Your task to perform on an android device: turn vacation reply on in the gmail app Image 0: 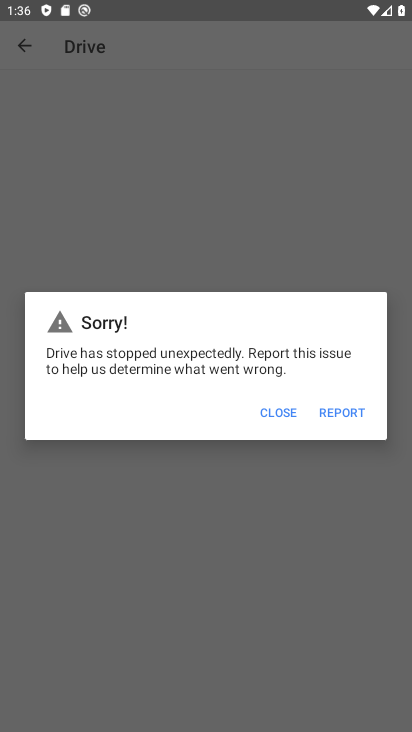
Step 0: press home button
Your task to perform on an android device: turn vacation reply on in the gmail app Image 1: 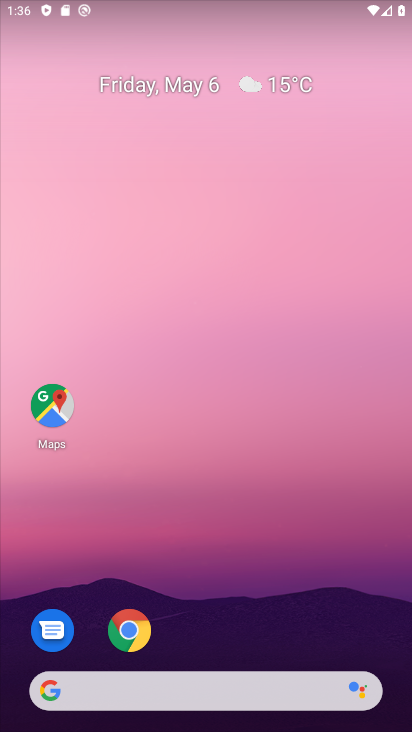
Step 1: drag from (205, 623) to (252, 15)
Your task to perform on an android device: turn vacation reply on in the gmail app Image 2: 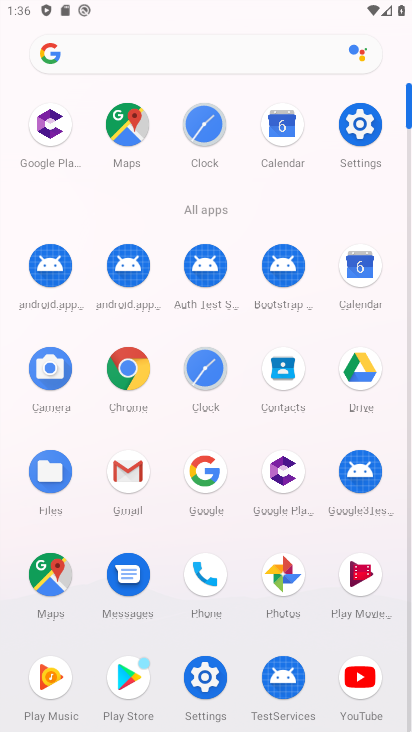
Step 2: click (123, 465)
Your task to perform on an android device: turn vacation reply on in the gmail app Image 3: 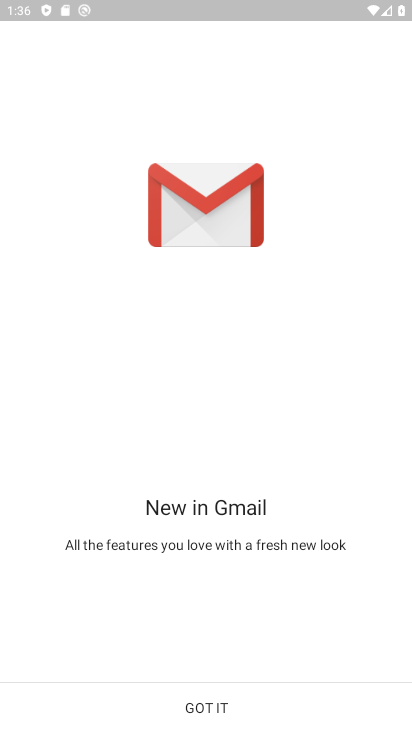
Step 3: click (202, 698)
Your task to perform on an android device: turn vacation reply on in the gmail app Image 4: 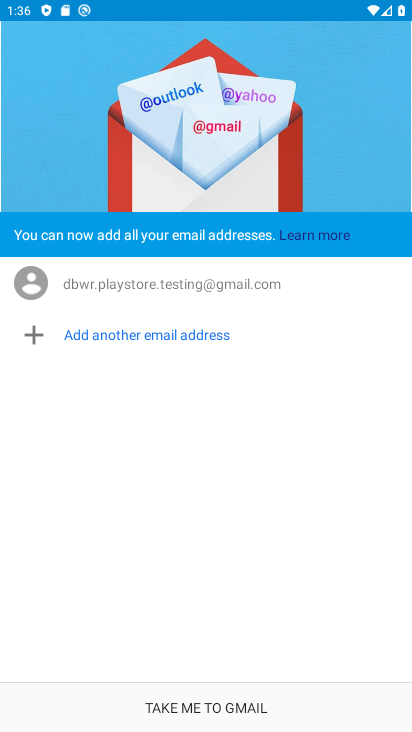
Step 4: click (202, 698)
Your task to perform on an android device: turn vacation reply on in the gmail app Image 5: 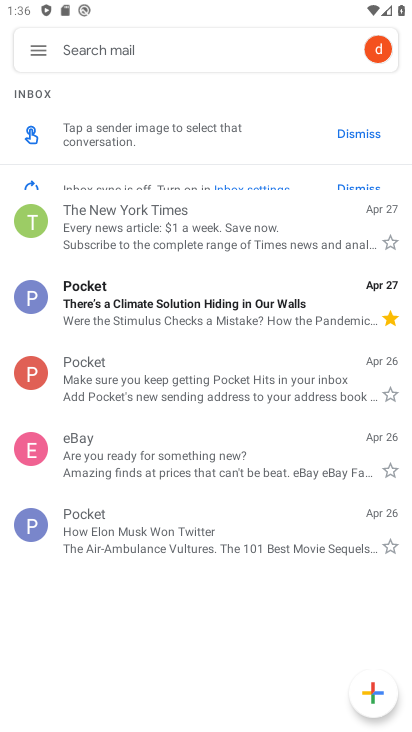
Step 5: click (39, 52)
Your task to perform on an android device: turn vacation reply on in the gmail app Image 6: 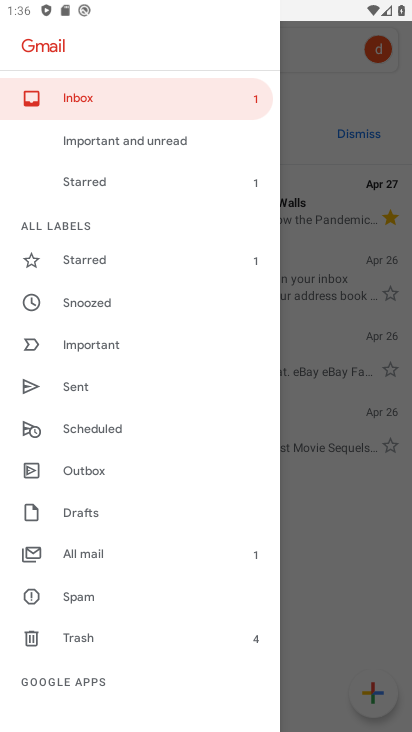
Step 6: drag from (90, 637) to (101, 293)
Your task to perform on an android device: turn vacation reply on in the gmail app Image 7: 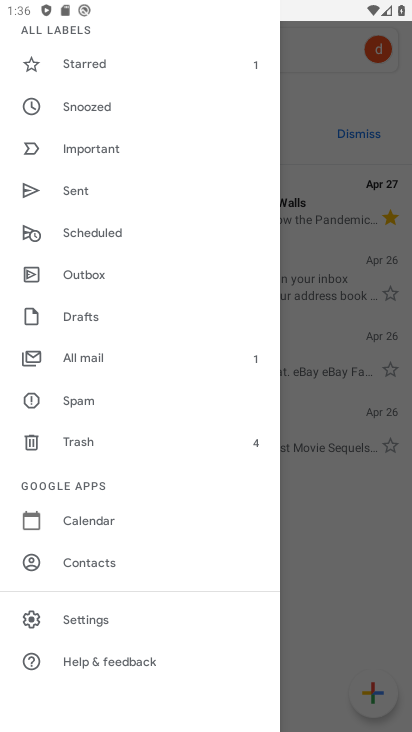
Step 7: click (103, 621)
Your task to perform on an android device: turn vacation reply on in the gmail app Image 8: 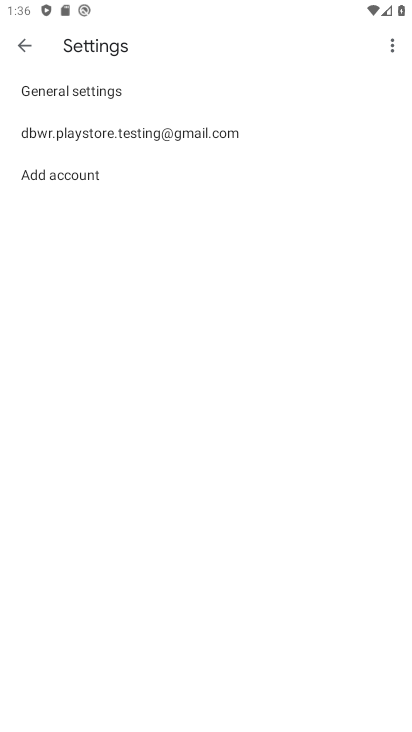
Step 8: click (119, 131)
Your task to perform on an android device: turn vacation reply on in the gmail app Image 9: 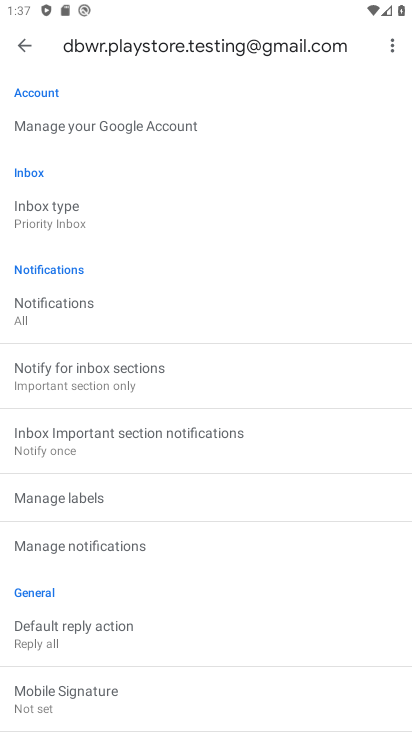
Step 9: drag from (168, 325) to (197, 186)
Your task to perform on an android device: turn vacation reply on in the gmail app Image 10: 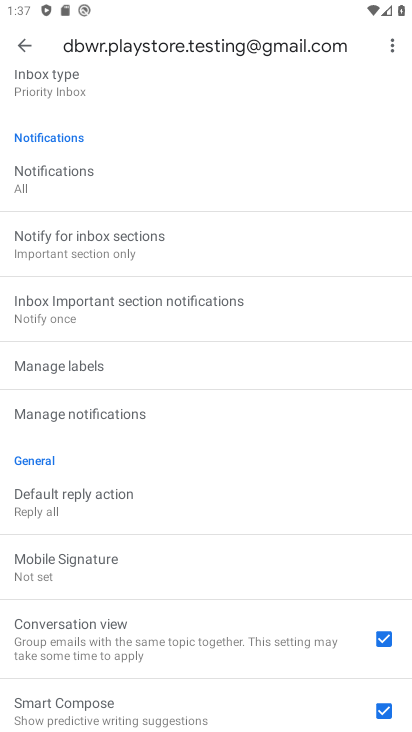
Step 10: drag from (169, 357) to (234, 155)
Your task to perform on an android device: turn vacation reply on in the gmail app Image 11: 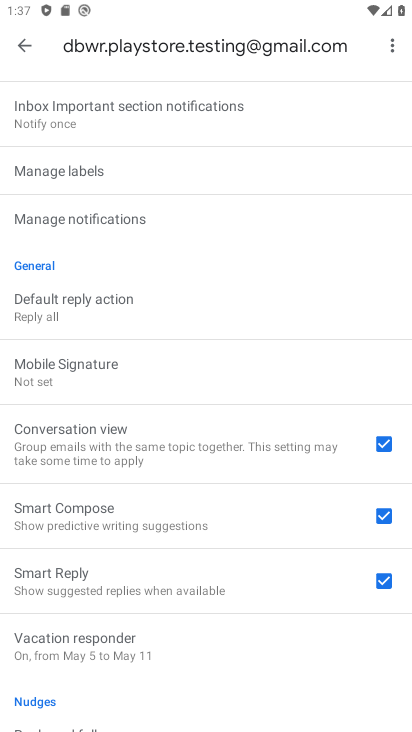
Step 11: click (104, 660)
Your task to perform on an android device: turn vacation reply on in the gmail app Image 12: 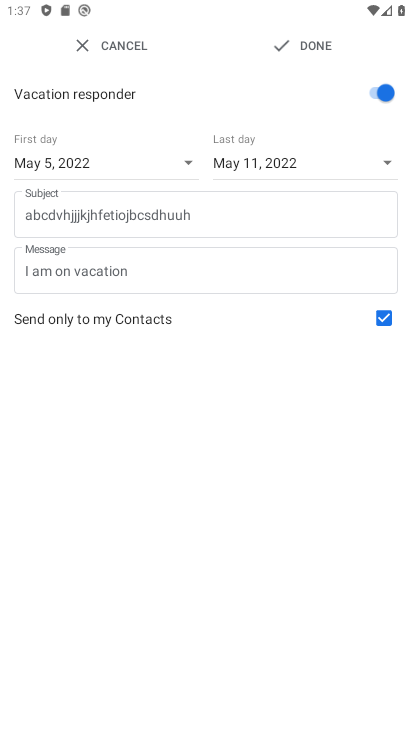
Step 12: task complete